Your task to perform on an android device: Is it going to rain today? Image 0: 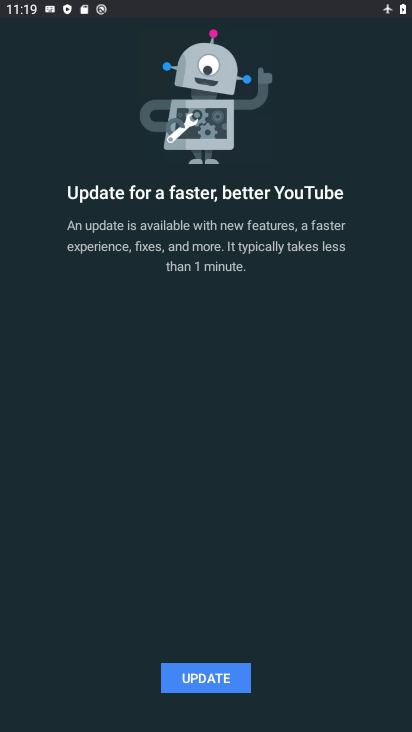
Step 0: press back button
Your task to perform on an android device: Is it going to rain today? Image 1: 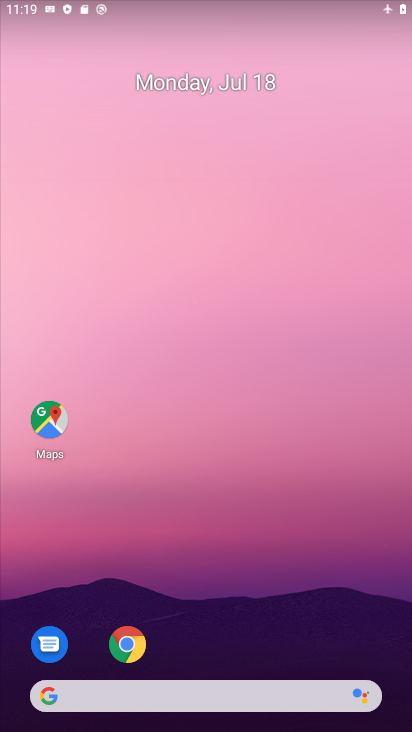
Step 1: drag from (225, 682) to (163, 238)
Your task to perform on an android device: Is it going to rain today? Image 2: 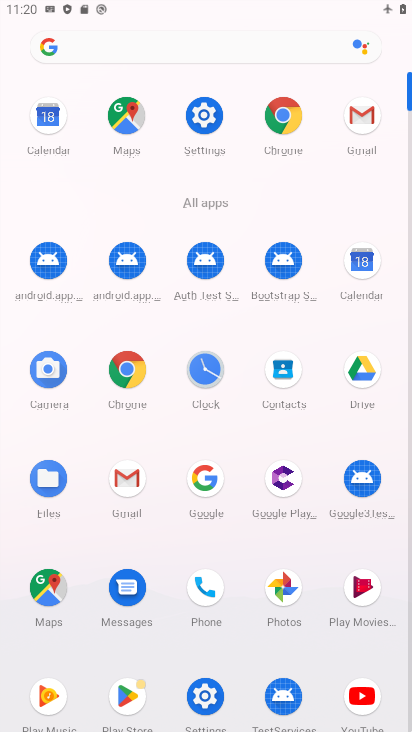
Step 2: click (208, 477)
Your task to perform on an android device: Is it going to rain today? Image 3: 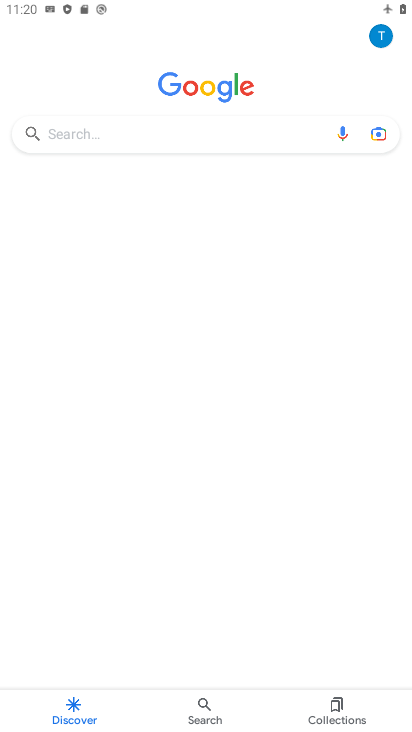
Step 3: click (151, 142)
Your task to perform on an android device: Is it going to rain today? Image 4: 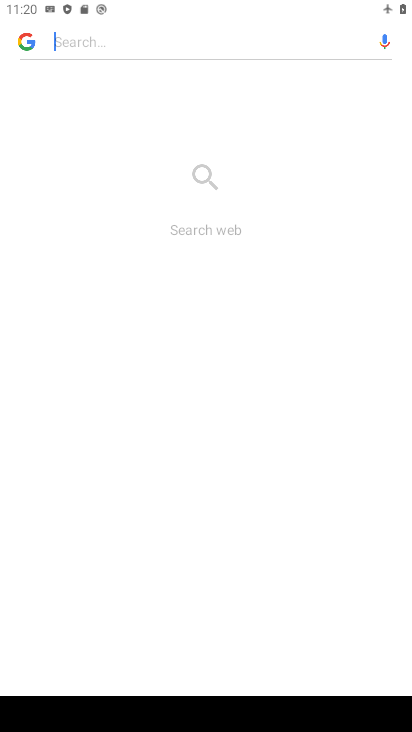
Step 4: task complete